Your task to perform on an android device: allow cookies in the chrome app Image 0: 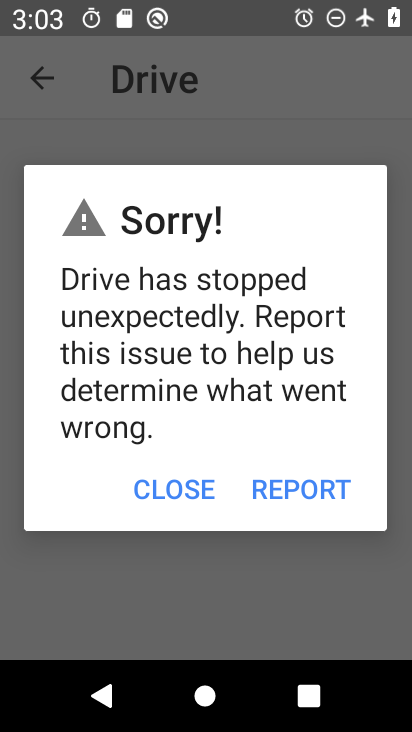
Step 0: press back button
Your task to perform on an android device: allow cookies in the chrome app Image 1: 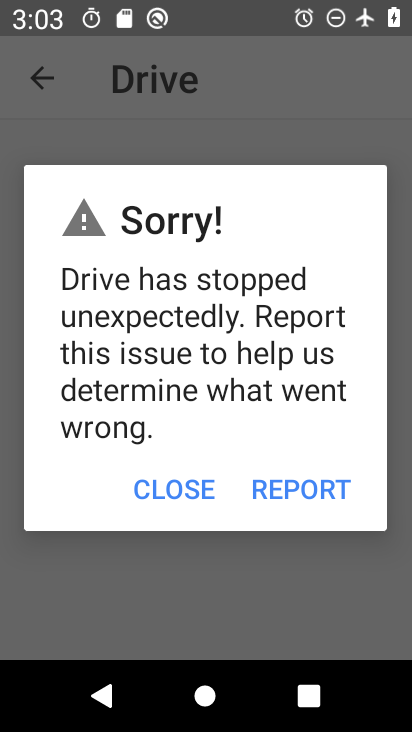
Step 1: press home button
Your task to perform on an android device: allow cookies in the chrome app Image 2: 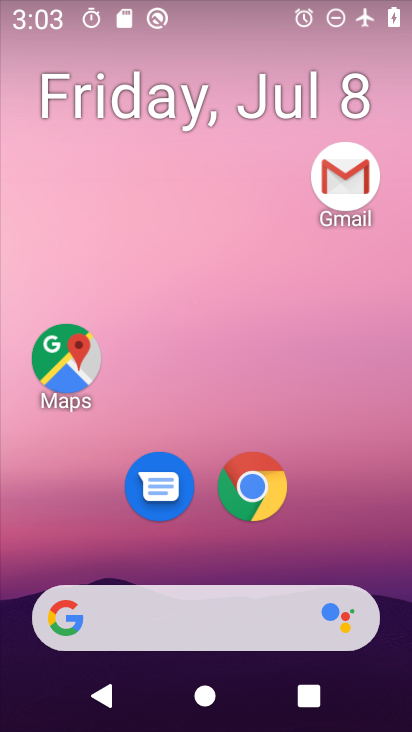
Step 2: drag from (368, 531) to (362, 115)
Your task to perform on an android device: allow cookies in the chrome app Image 3: 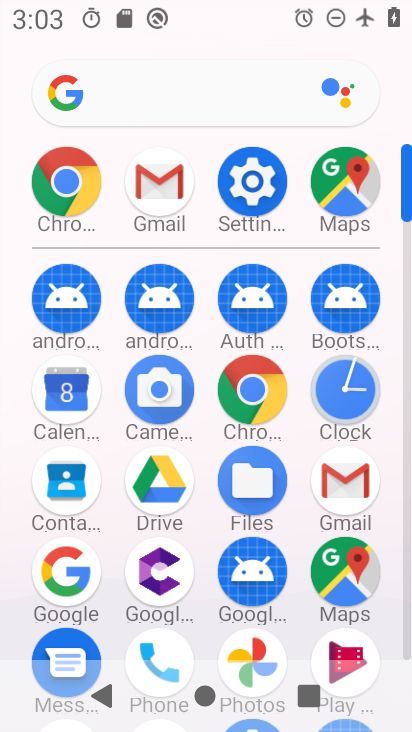
Step 3: click (247, 397)
Your task to perform on an android device: allow cookies in the chrome app Image 4: 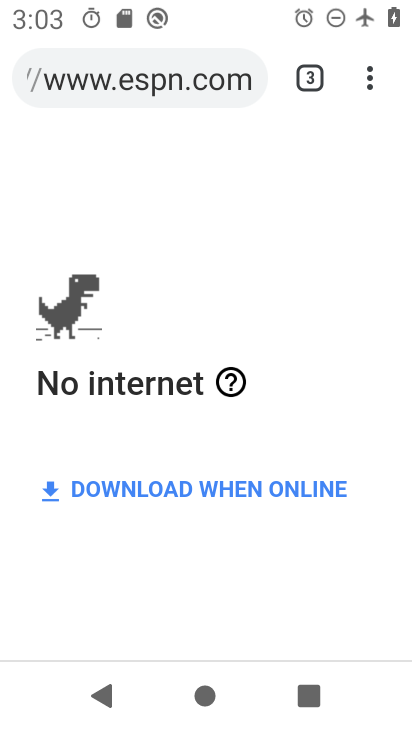
Step 4: click (373, 80)
Your task to perform on an android device: allow cookies in the chrome app Image 5: 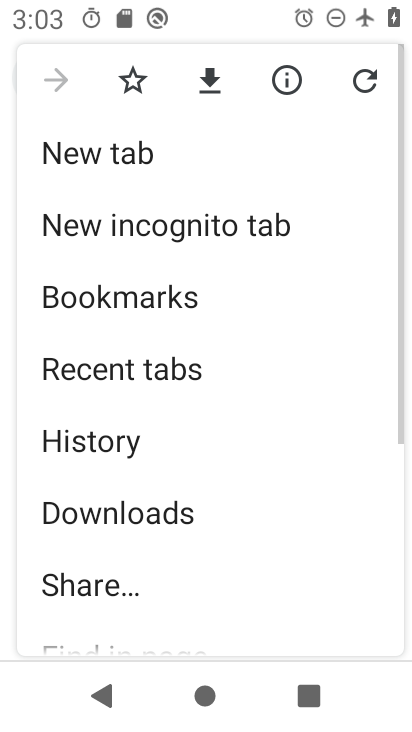
Step 5: drag from (307, 369) to (312, 277)
Your task to perform on an android device: allow cookies in the chrome app Image 6: 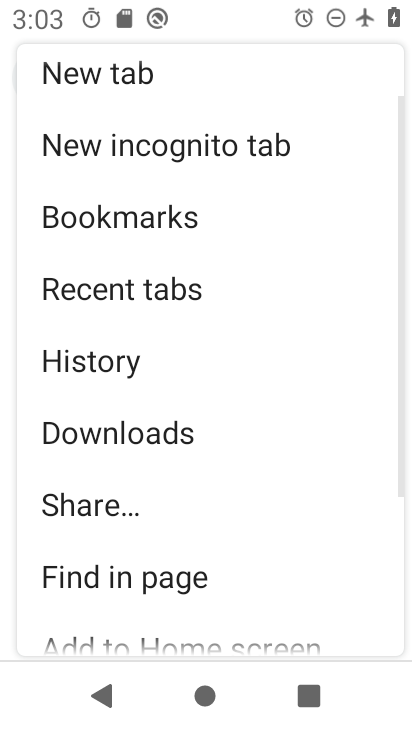
Step 6: drag from (321, 435) to (318, 295)
Your task to perform on an android device: allow cookies in the chrome app Image 7: 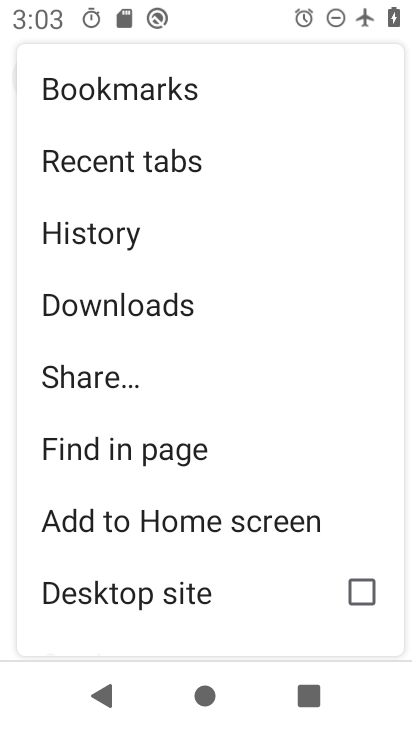
Step 7: drag from (269, 568) to (262, 362)
Your task to perform on an android device: allow cookies in the chrome app Image 8: 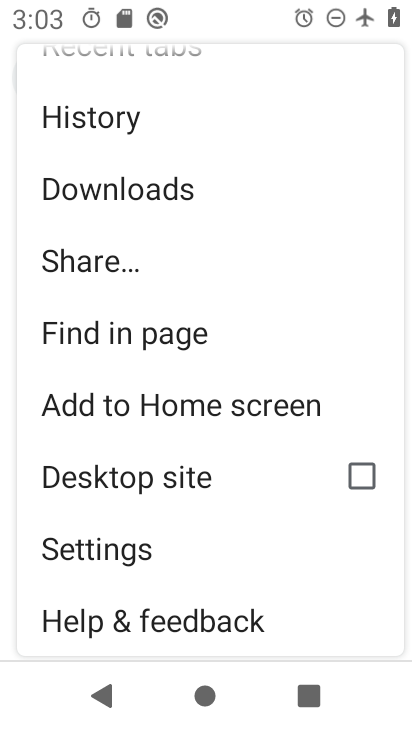
Step 8: drag from (277, 527) to (275, 378)
Your task to perform on an android device: allow cookies in the chrome app Image 9: 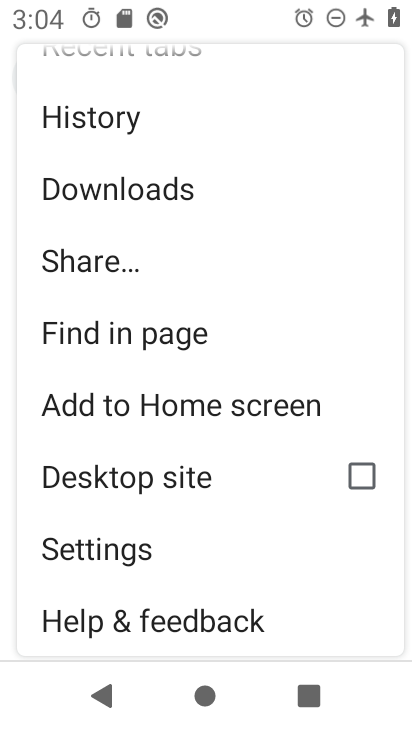
Step 9: click (141, 543)
Your task to perform on an android device: allow cookies in the chrome app Image 10: 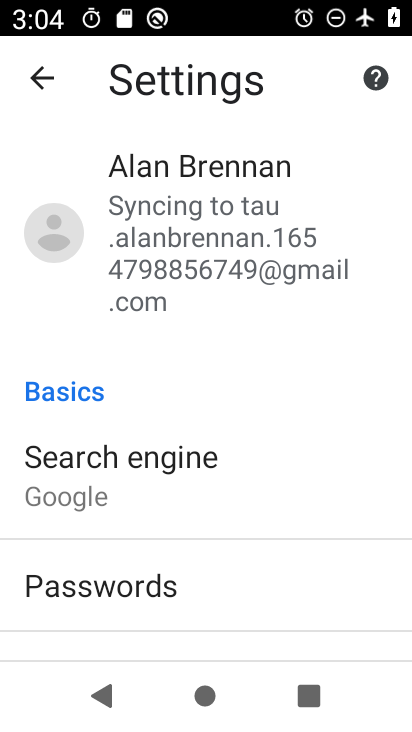
Step 10: drag from (338, 514) to (344, 364)
Your task to perform on an android device: allow cookies in the chrome app Image 11: 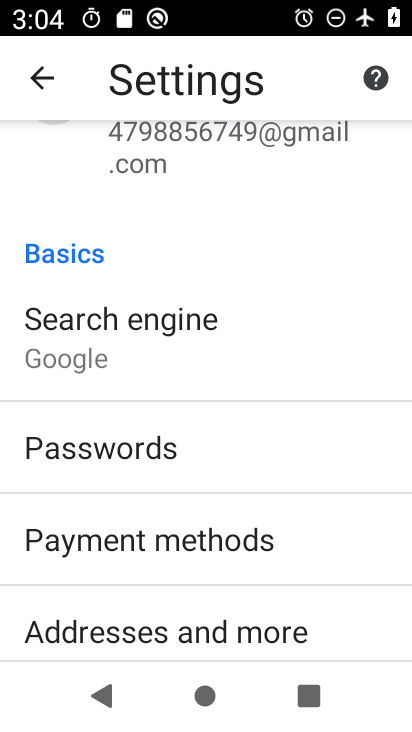
Step 11: drag from (351, 540) to (339, 380)
Your task to perform on an android device: allow cookies in the chrome app Image 12: 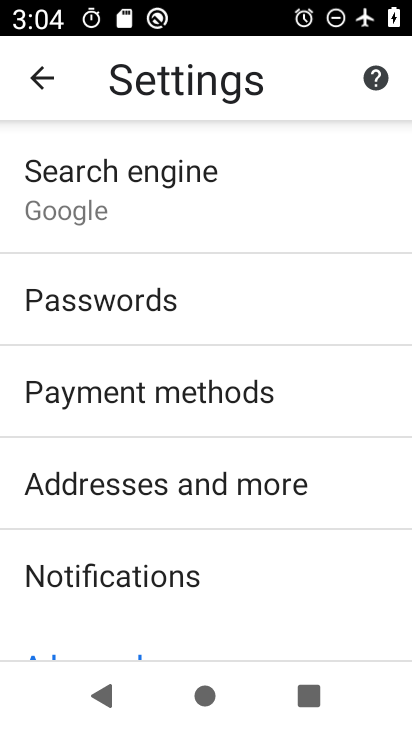
Step 12: drag from (352, 570) to (339, 397)
Your task to perform on an android device: allow cookies in the chrome app Image 13: 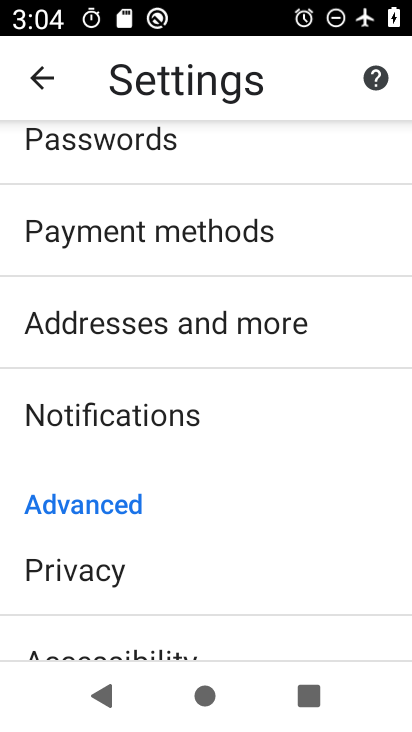
Step 13: drag from (307, 547) to (309, 366)
Your task to perform on an android device: allow cookies in the chrome app Image 14: 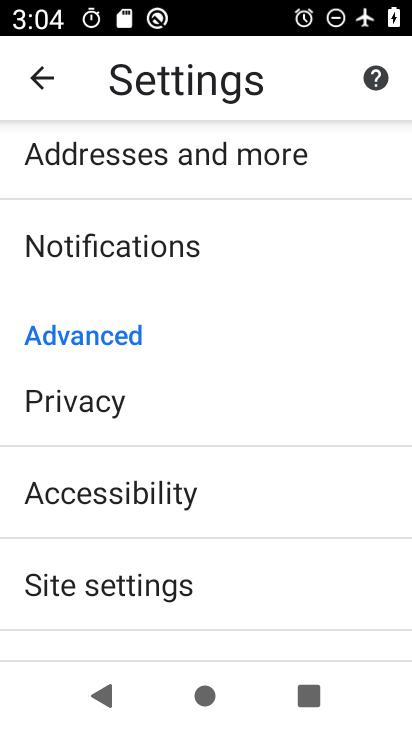
Step 14: drag from (299, 565) to (304, 388)
Your task to perform on an android device: allow cookies in the chrome app Image 15: 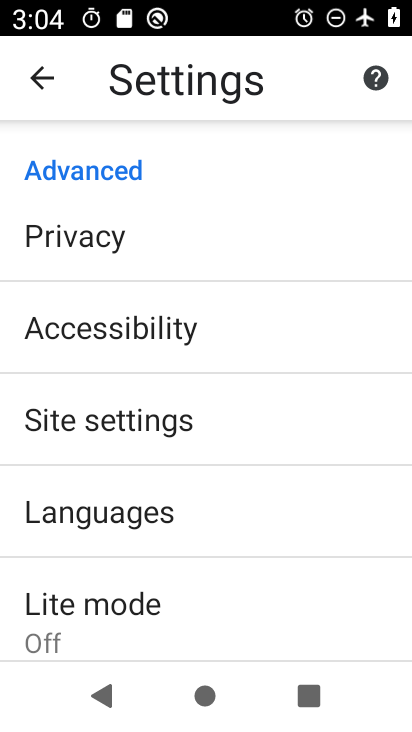
Step 15: click (269, 429)
Your task to perform on an android device: allow cookies in the chrome app Image 16: 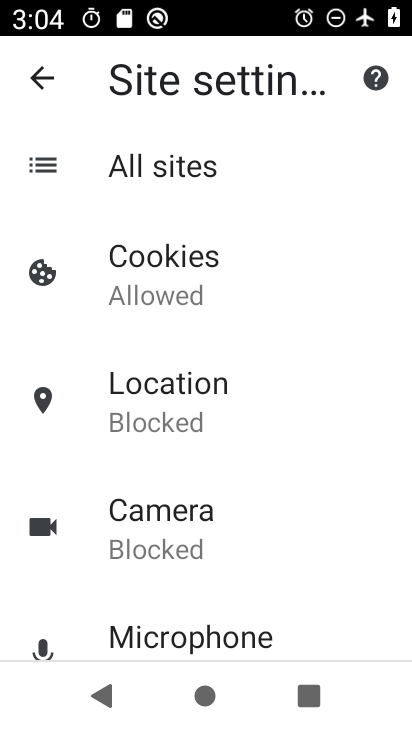
Step 16: drag from (357, 495) to (338, 345)
Your task to perform on an android device: allow cookies in the chrome app Image 17: 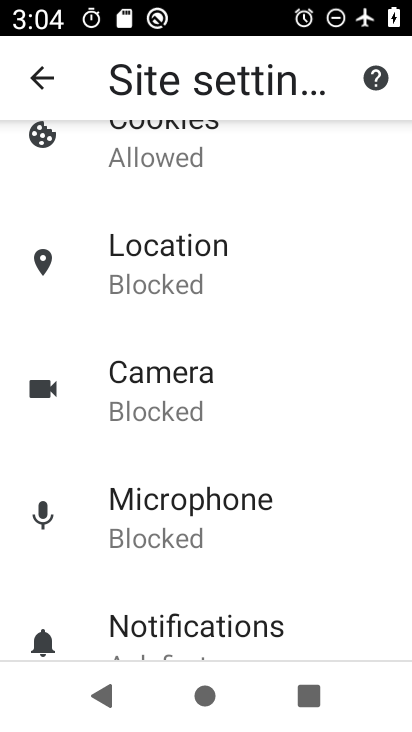
Step 17: drag from (321, 229) to (328, 426)
Your task to perform on an android device: allow cookies in the chrome app Image 18: 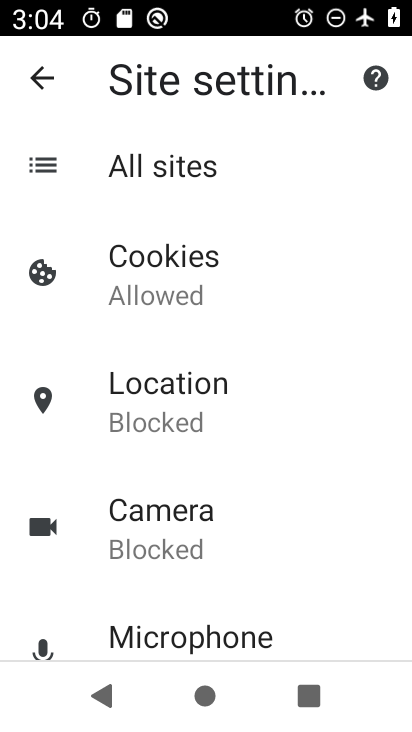
Step 18: click (188, 294)
Your task to perform on an android device: allow cookies in the chrome app Image 19: 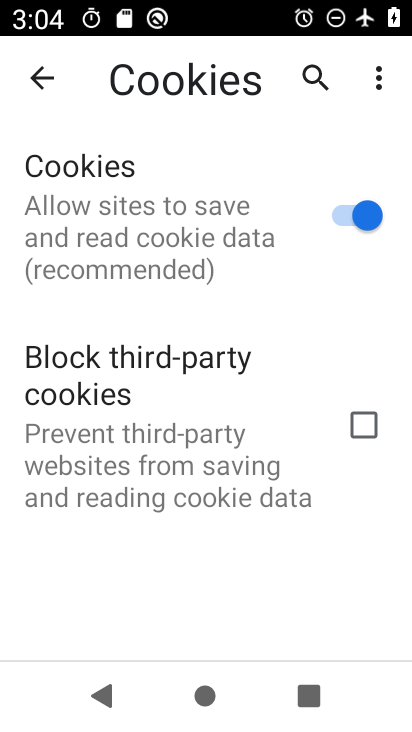
Step 19: task complete